Your task to perform on an android device: Open Android settings Image 0: 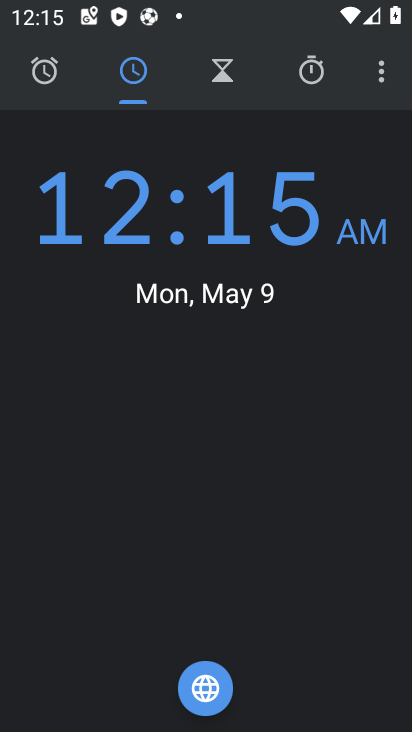
Step 0: press home button
Your task to perform on an android device: Open Android settings Image 1: 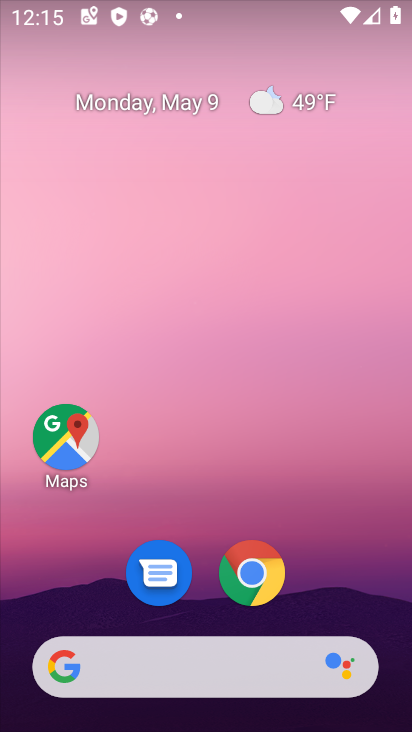
Step 1: drag from (272, 563) to (384, 36)
Your task to perform on an android device: Open Android settings Image 2: 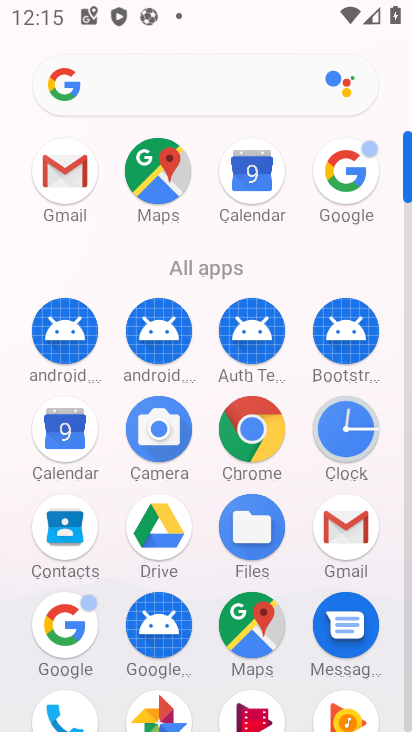
Step 2: drag from (251, 487) to (236, 17)
Your task to perform on an android device: Open Android settings Image 3: 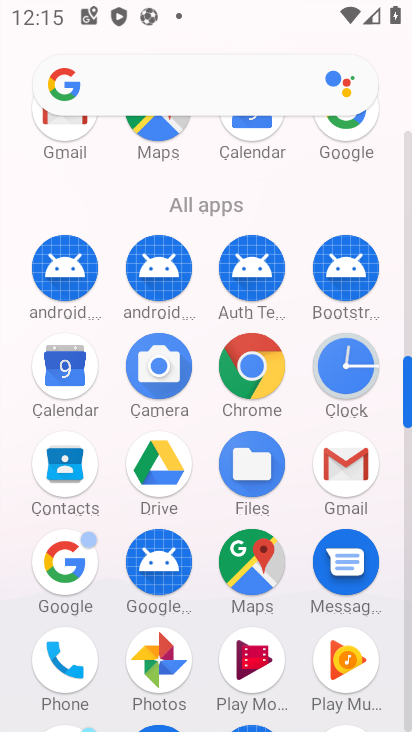
Step 3: drag from (219, 402) to (213, 42)
Your task to perform on an android device: Open Android settings Image 4: 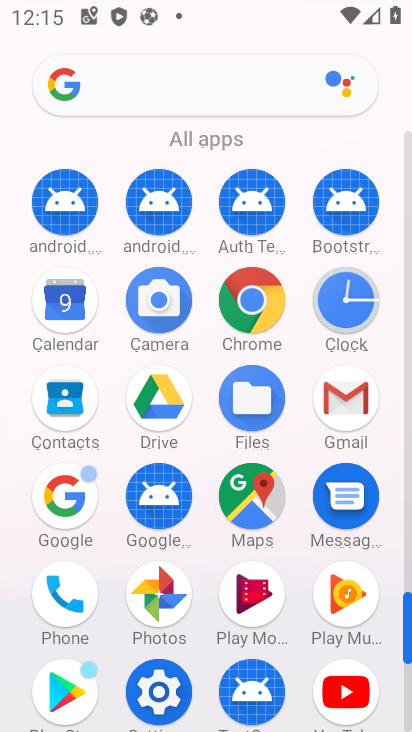
Step 4: click (174, 680)
Your task to perform on an android device: Open Android settings Image 5: 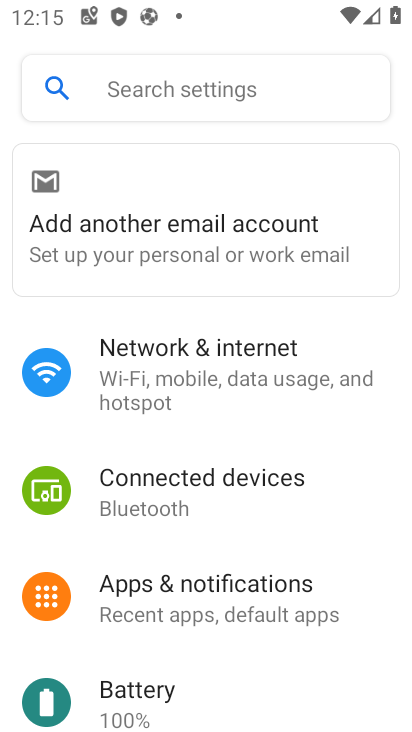
Step 5: task complete